Your task to perform on an android device: Open Maps and search for coffee Image 0: 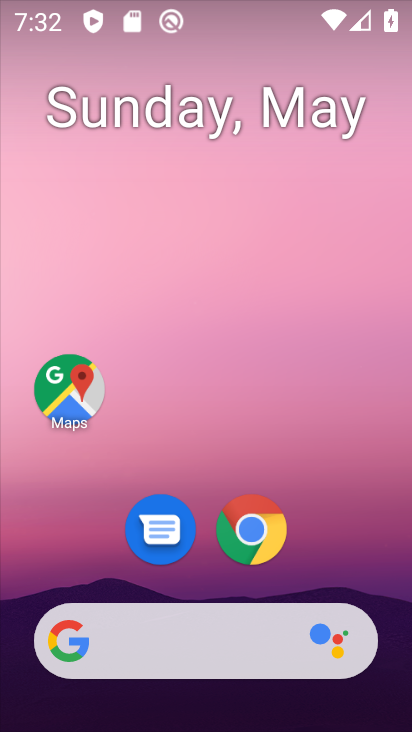
Step 0: click (72, 389)
Your task to perform on an android device: Open Maps and search for coffee Image 1: 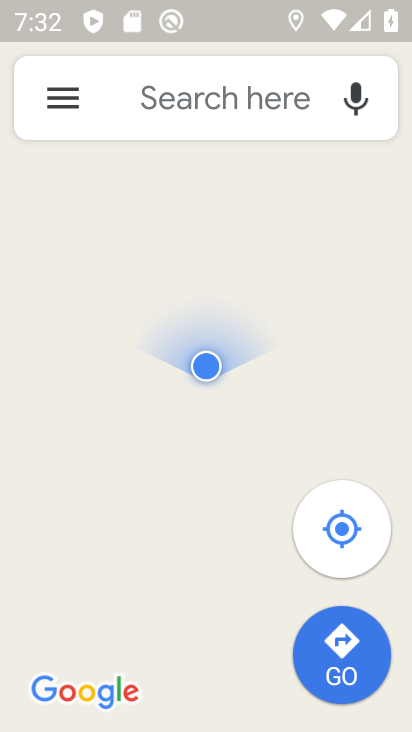
Step 1: click (156, 102)
Your task to perform on an android device: Open Maps and search for coffee Image 2: 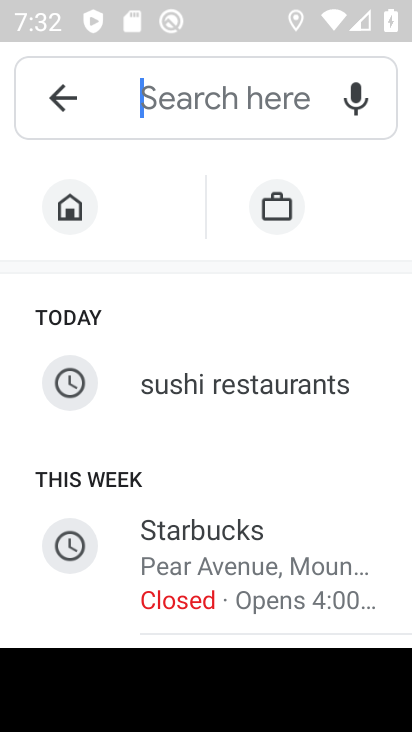
Step 2: type "coffee"
Your task to perform on an android device: Open Maps and search for coffee Image 3: 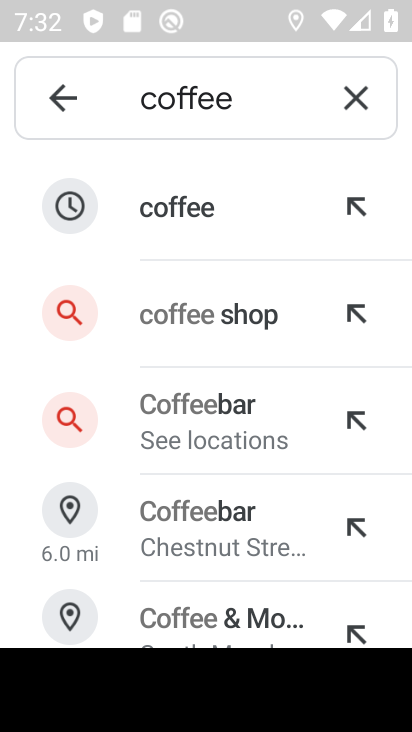
Step 3: click (160, 210)
Your task to perform on an android device: Open Maps and search for coffee Image 4: 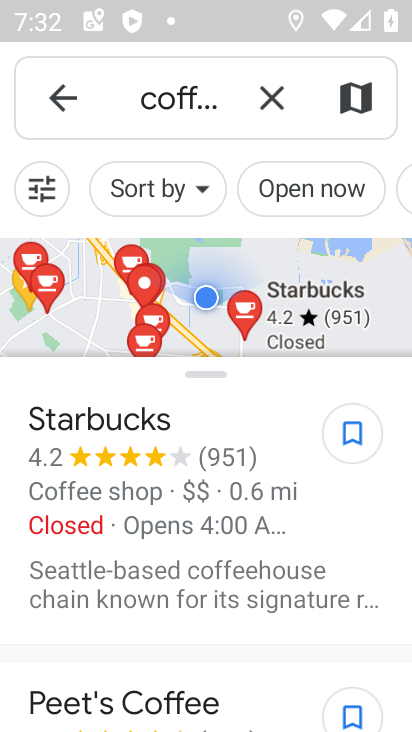
Step 4: task complete